Your task to perform on an android device: visit the assistant section in the google photos Image 0: 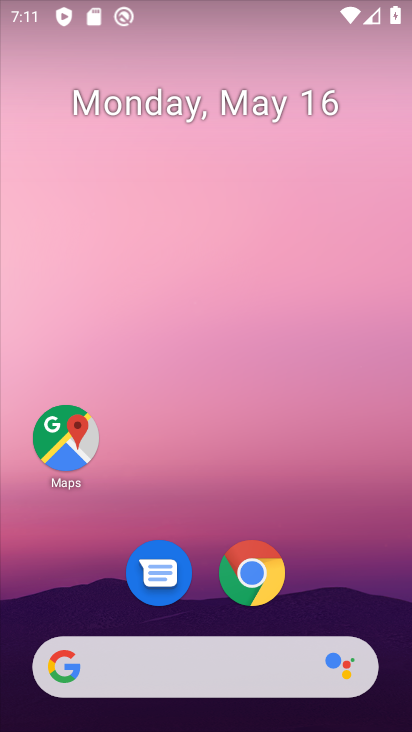
Step 0: drag from (335, 447) to (407, 138)
Your task to perform on an android device: visit the assistant section in the google photos Image 1: 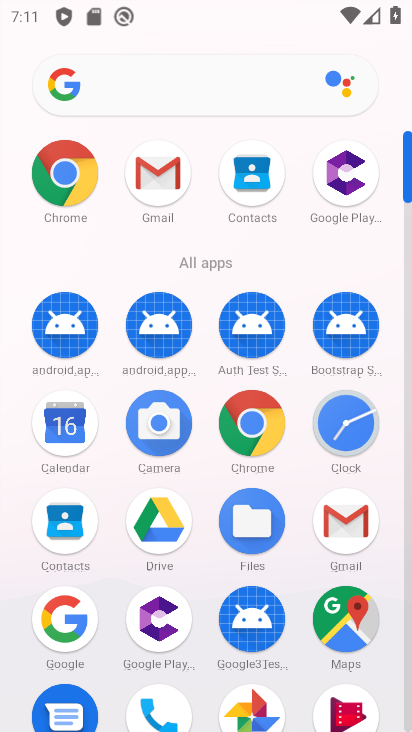
Step 1: drag from (395, 580) to (374, 247)
Your task to perform on an android device: visit the assistant section in the google photos Image 2: 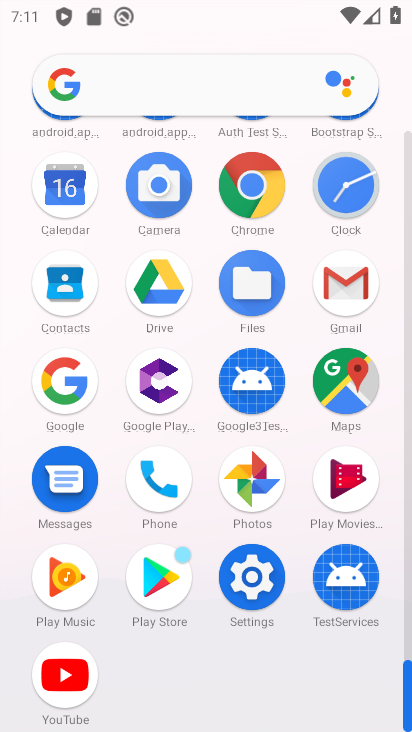
Step 2: click (256, 480)
Your task to perform on an android device: visit the assistant section in the google photos Image 3: 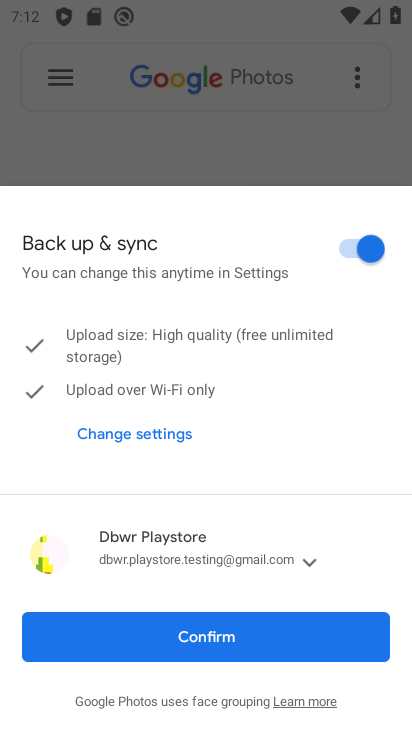
Step 3: click (212, 619)
Your task to perform on an android device: visit the assistant section in the google photos Image 4: 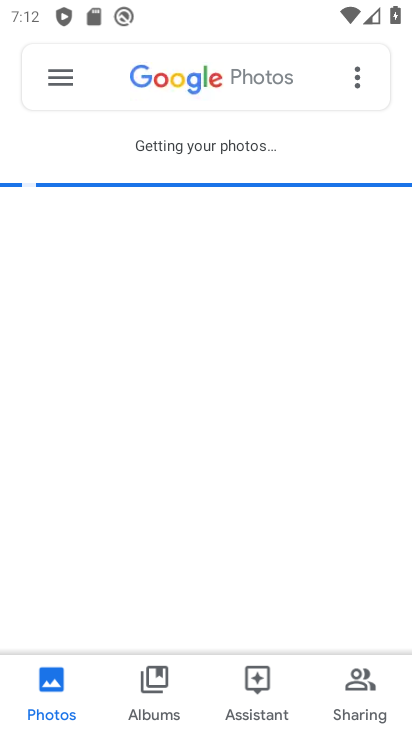
Step 4: click (215, 654)
Your task to perform on an android device: visit the assistant section in the google photos Image 5: 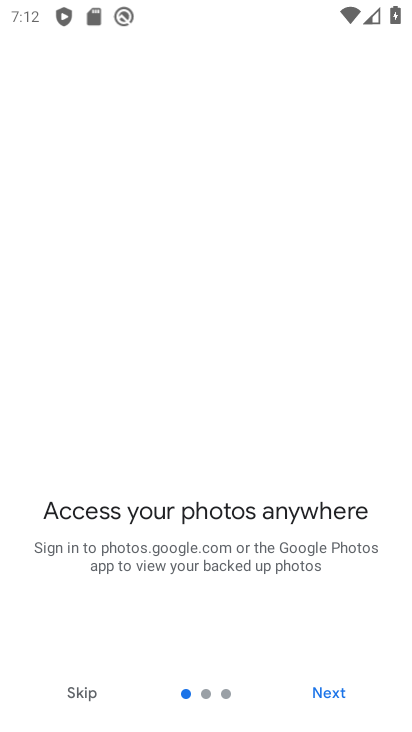
Step 5: click (325, 695)
Your task to perform on an android device: visit the assistant section in the google photos Image 6: 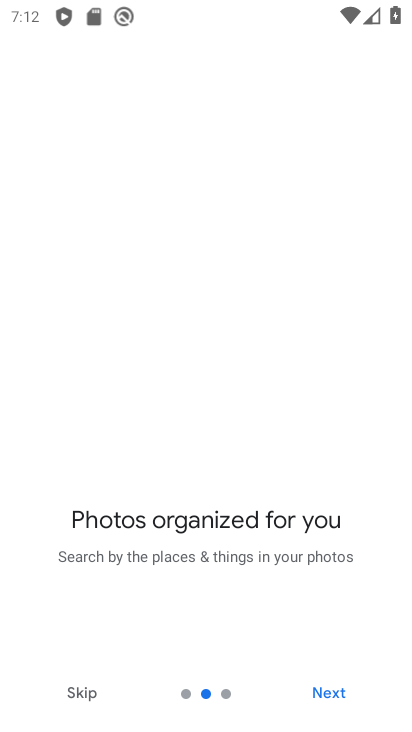
Step 6: click (325, 695)
Your task to perform on an android device: visit the assistant section in the google photos Image 7: 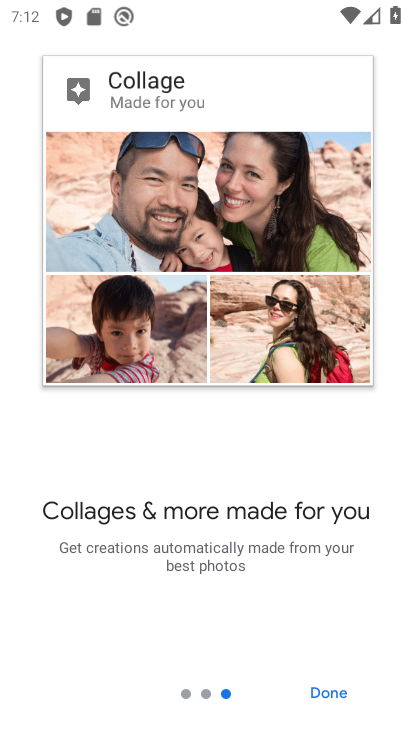
Step 7: click (325, 694)
Your task to perform on an android device: visit the assistant section in the google photos Image 8: 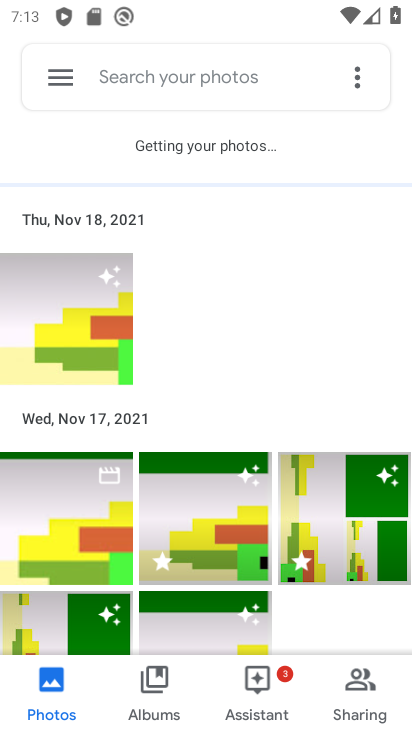
Step 8: click (258, 675)
Your task to perform on an android device: visit the assistant section in the google photos Image 9: 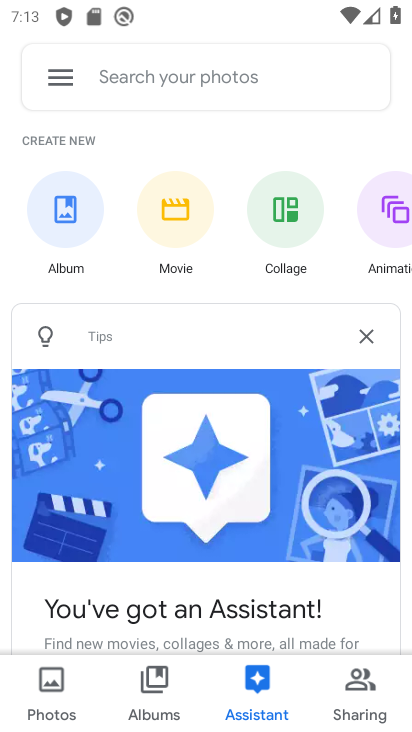
Step 9: task complete